Your task to perform on an android device: turn off notifications in google photos Image 0: 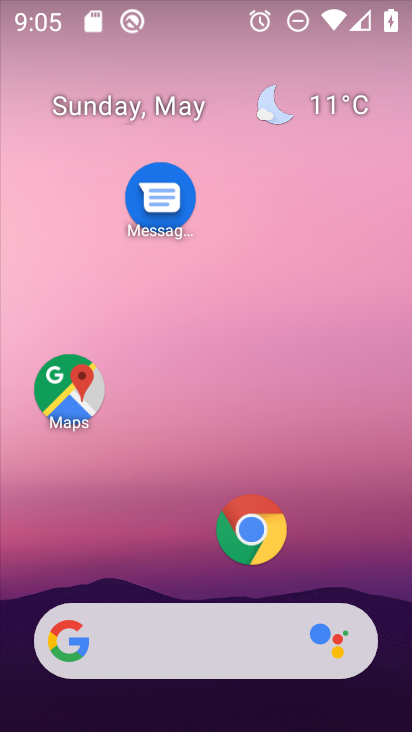
Step 0: press home button
Your task to perform on an android device: turn off notifications in google photos Image 1: 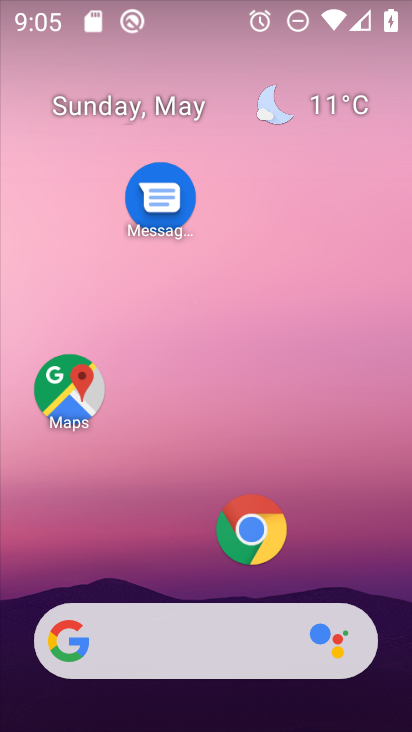
Step 1: drag from (190, 582) to (240, 56)
Your task to perform on an android device: turn off notifications in google photos Image 2: 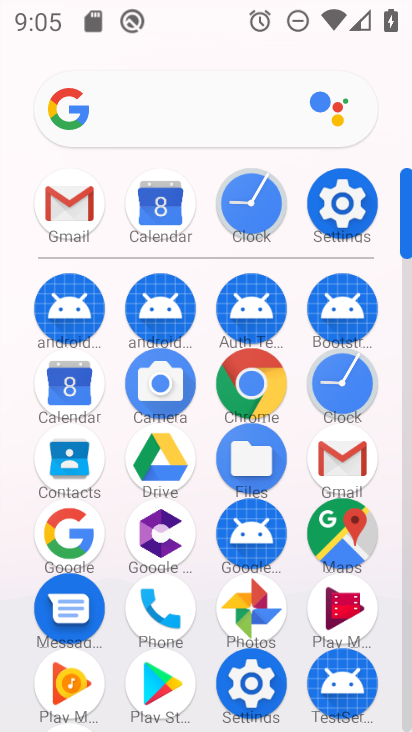
Step 2: click (246, 599)
Your task to perform on an android device: turn off notifications in google photos Image 3: 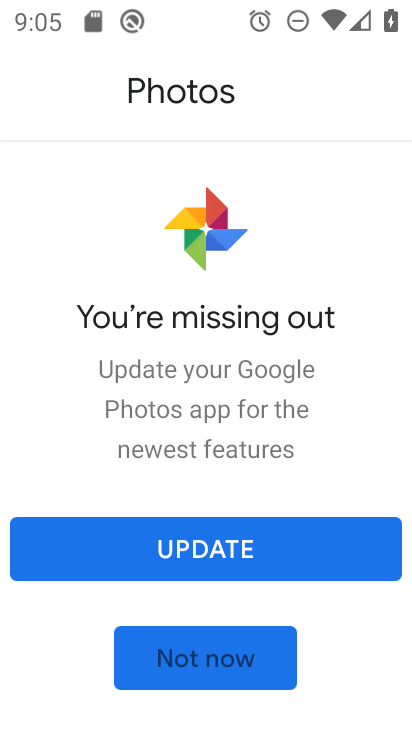
Step 3: click (220, 546)
Your task to perform on an android device: turn off notifications in google photos Image 4: 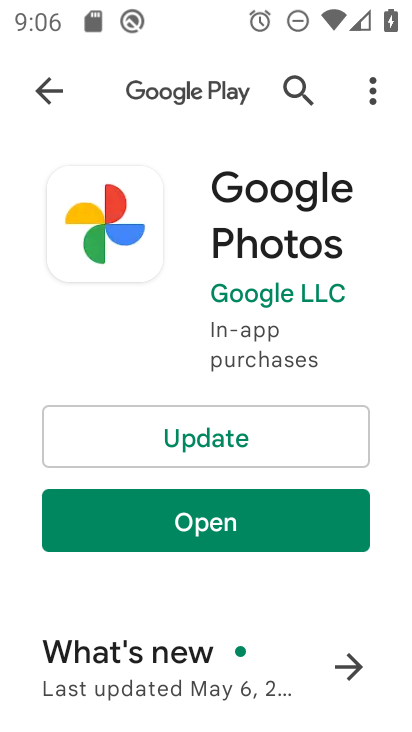
Step 4: click (210, 434)
Your task to perform on an android device: turn off notifications in google photos Image 5: 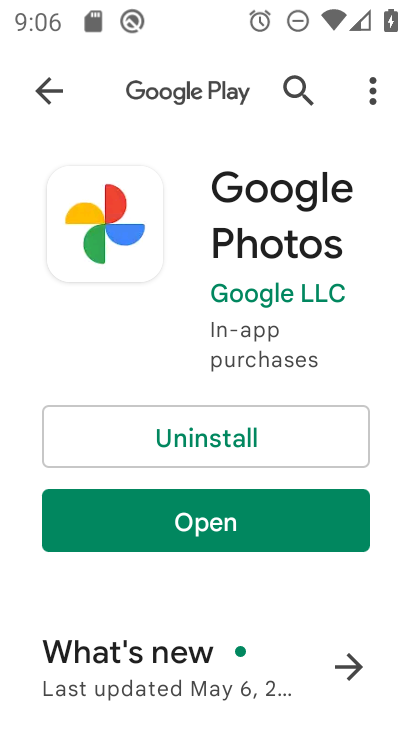
Step 5: click (232, 524)
Your task to perform on an android device: turn off notifications in google photos Image 6: 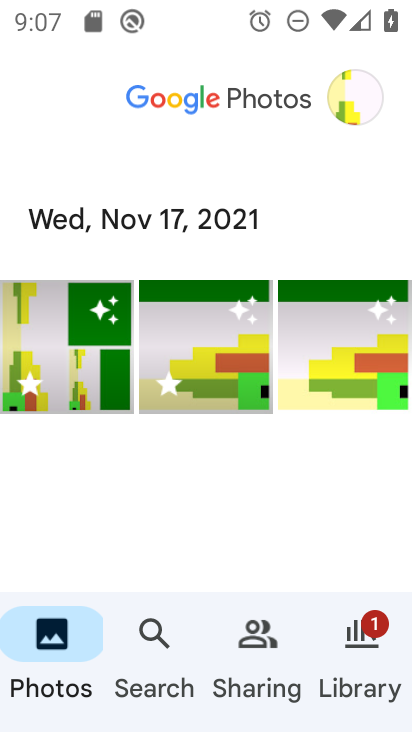
Step 6: click (357, 92)
Your task to perform on an android device: turn off notifications in google photos Image 7: 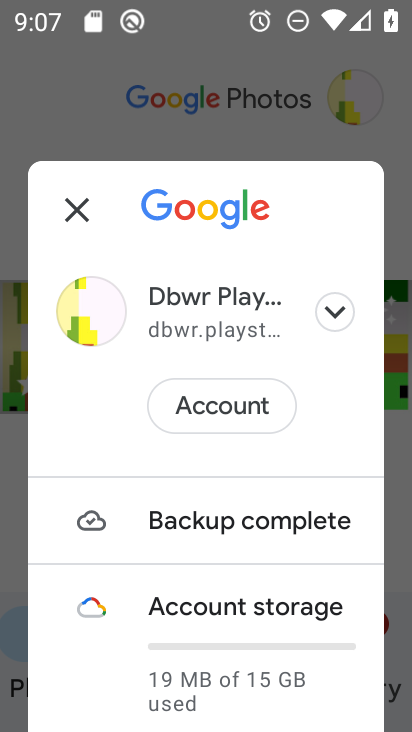
Step 7: drag from (172, 634) to (236, 203)
Your task to perform on an android device: turn off notifications in google photos Image 8: 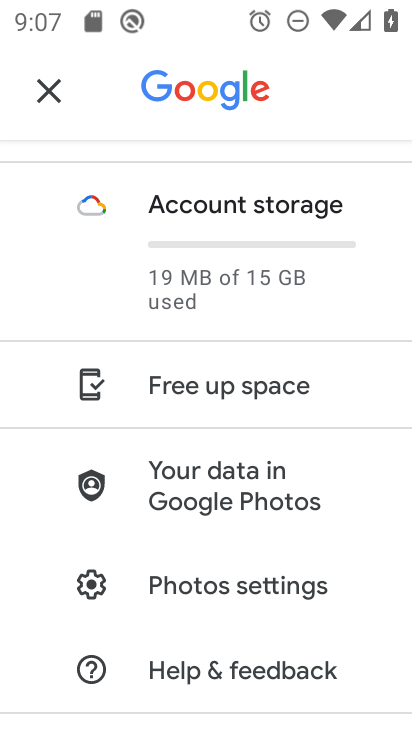
Step 8: click (141, 578)
Your task to perform on an android device: turn off notifications in google photos Image 9: 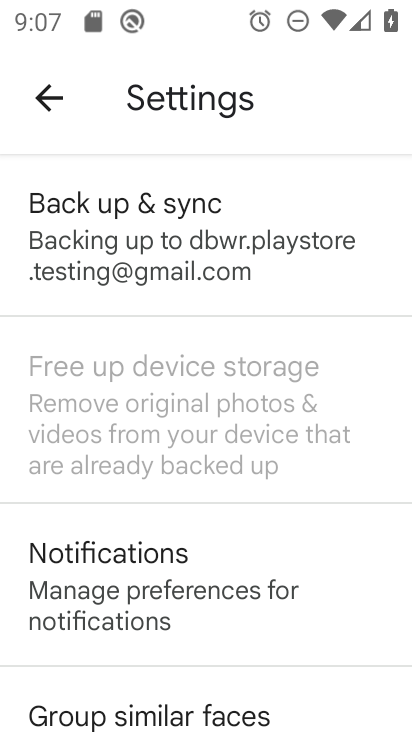
Step 9: click (196, 596)
Your task to perform on an android device: turn off notifications in google photos Image 10: 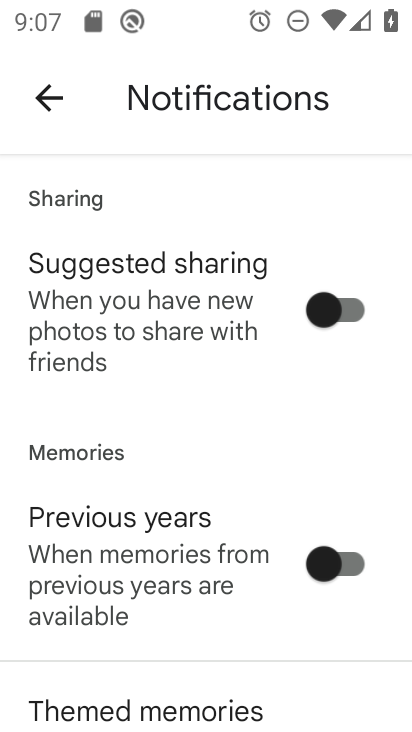
Step 10: drag from (183, 644) to (225, 108)
Your task to perform on an android device: turn off notifications in google photos Image 11: 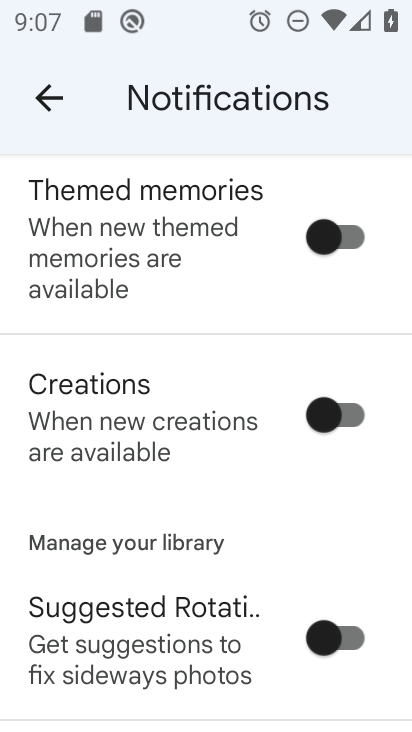
Step 11: drag from (201, 640) to (188, 143)
Your task to perform on an android device: turn off notifications in google photos Image 12: 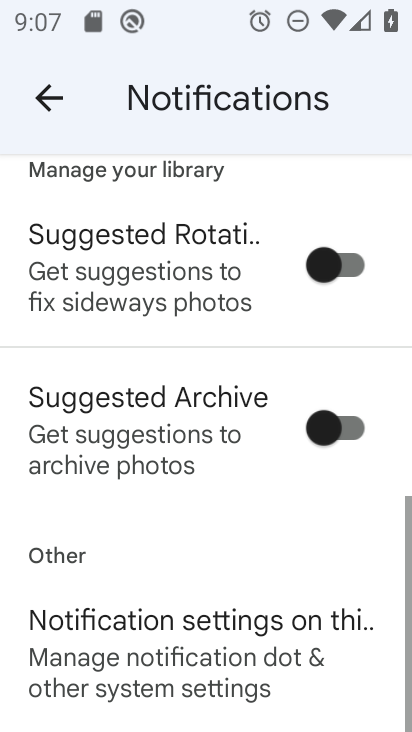
Step 12: click (216, 657)
Your task to perform on an android device: turn off notifications in google photos Image 13: 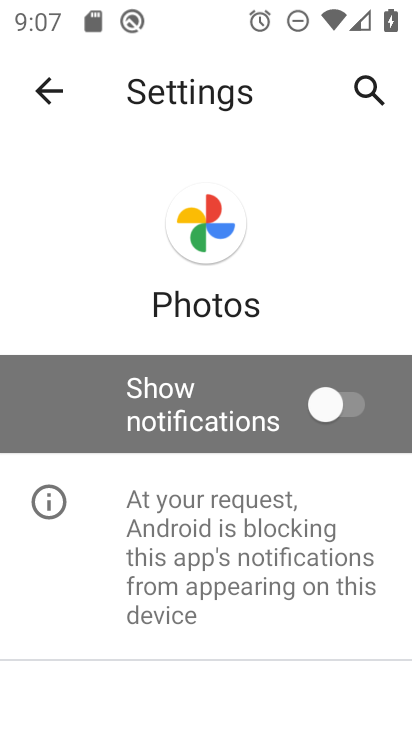
Step 13: task complete